Your task to perform on an android device: open chrome and create a bookmark for the current page Image 0: 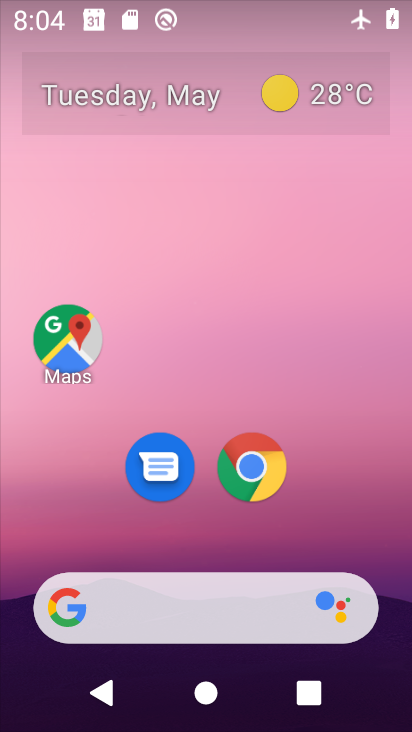
Step 0: click (246, 465)
Your task to perform on an android device: open chrome and create a bookmark for the current page Image 1: 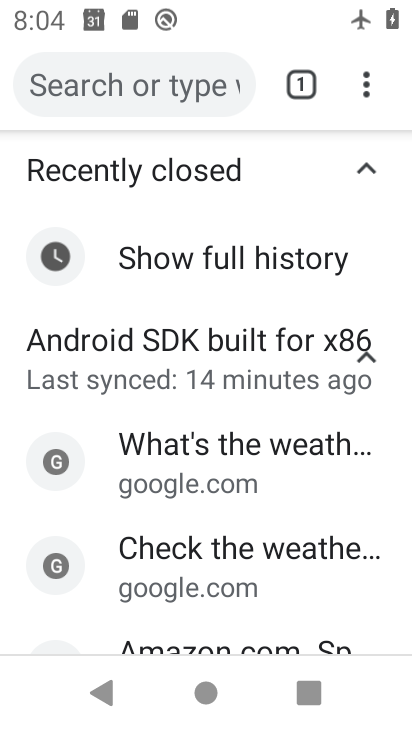
Step 1: click (363, 76)
Your task to perform on an android device: open chrome and create a bookmark for the current page Image 2: 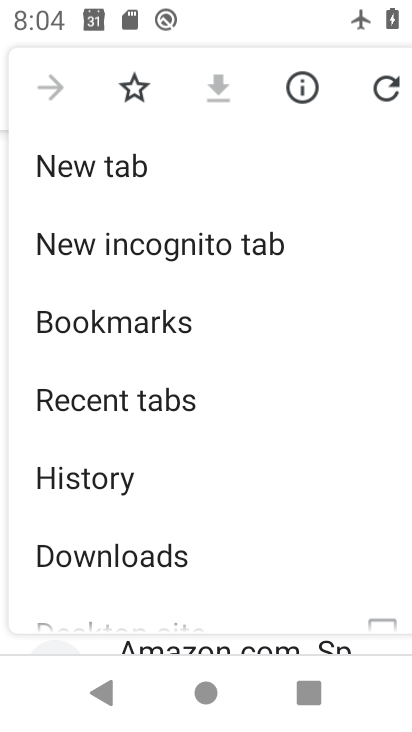
Step 2: click (132, 97)
Your task to perform on an android device: open chrome and create a bookmark for the current page Image 3: 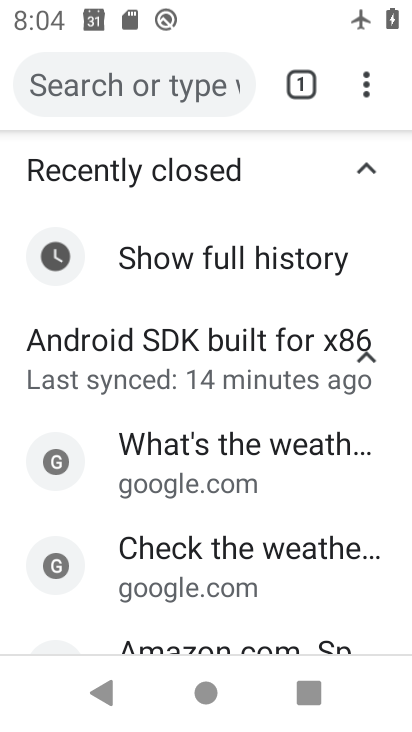
Step 3: task complete